Your task to perform on an android device: toggle notifications settings in the gmail app Image 0: 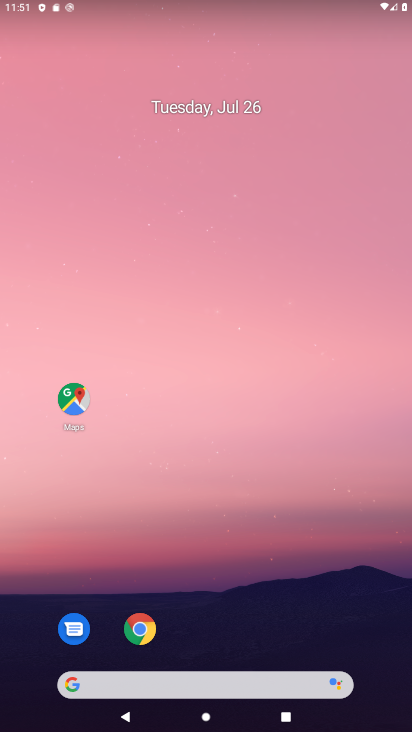
Step 0: click (181, 193)
Your task to perform on an android device: toggle notifications settings in the gmail app Image 1: 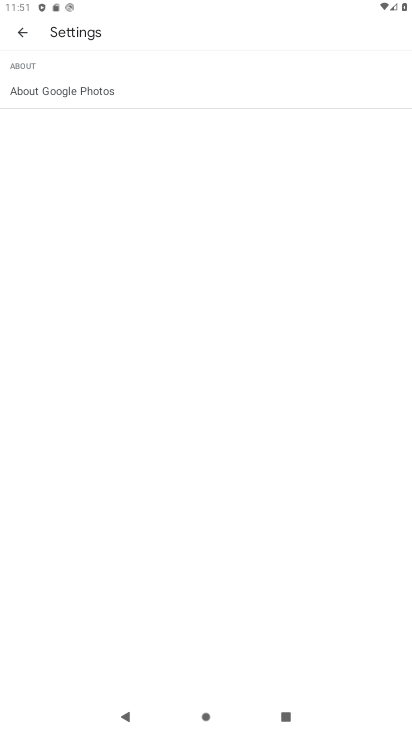
Step 1: press home button
Your task to perform on an android device: toggle notifications settings in the gmail app Image 2: 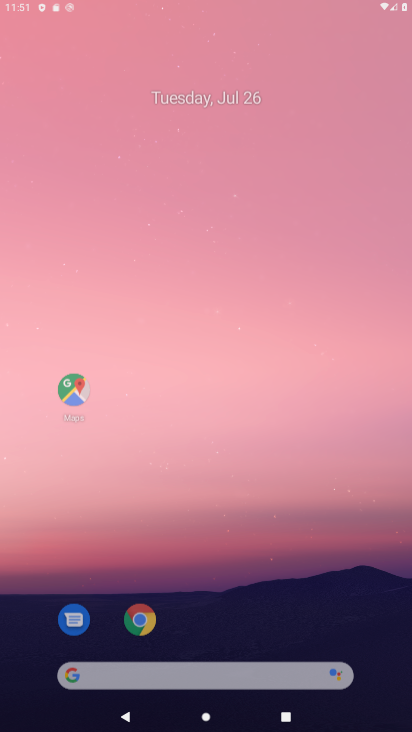
Step 2: drag from (249, 608) to (266, 160)
Your task to perform on an android device: toggle notifications settings in the gmail app Image 3: 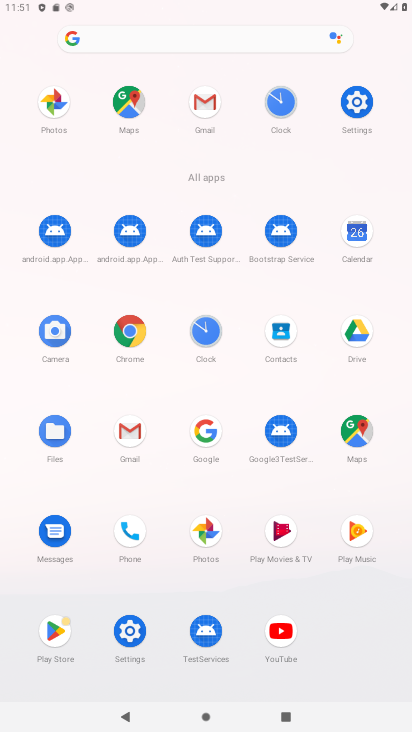
Step 3: click (130, 444)
Your task to perform on an android device: toggle notifications settings in the gmail app Image 4: 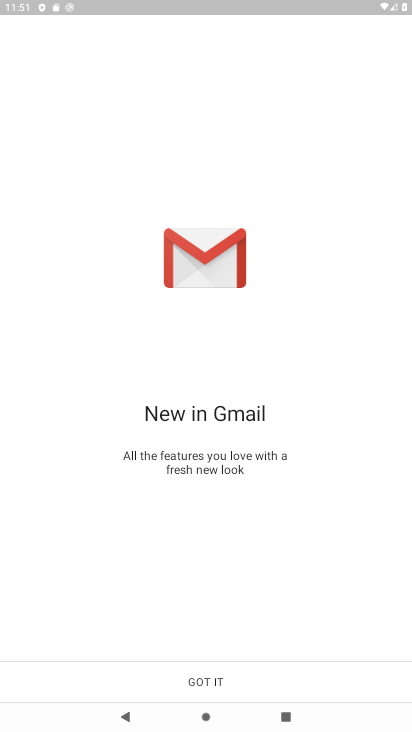
Step 4: drag from (234, 631) to (227, 244)
Your task to perform on an android device: toggle notifications settings in the gmail app Image 5: 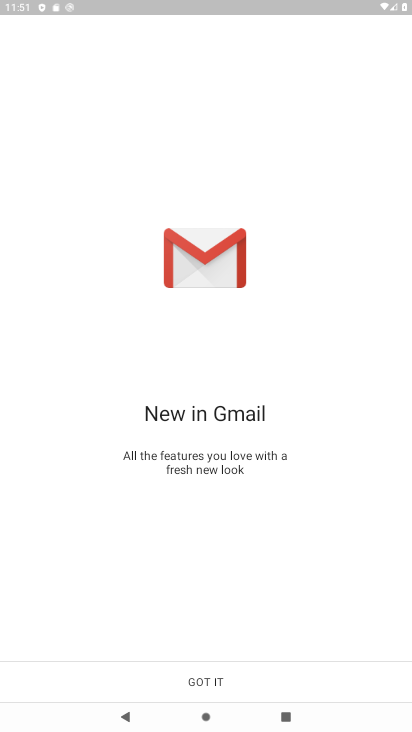
Step 5: click (195, 672)
Your task to perform on an android device: toggle notifications settings in the gmail app Image 6: 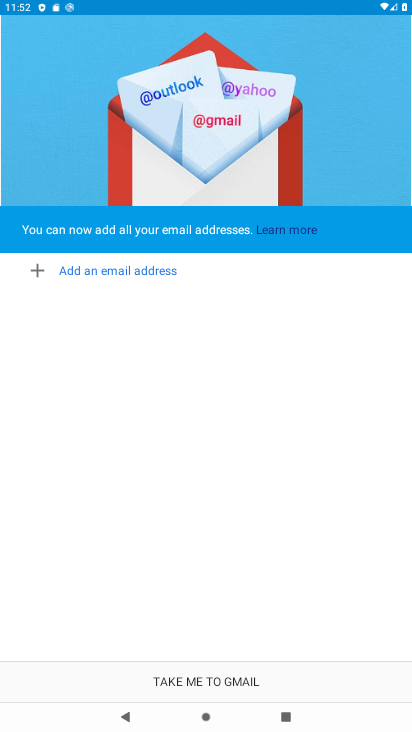
Step 6: click (186, 677)
Your task to perform on an android device: toggle notifications settings in the gmail app Image 7: 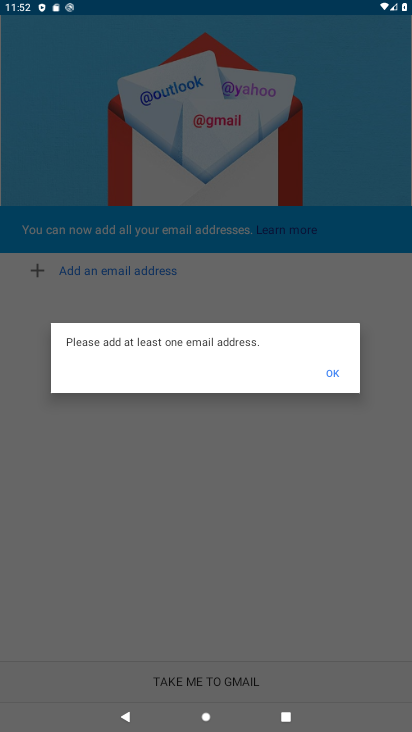
Step 7: click (332, 366)
Your task to perform on an android device: toggle notifications settings in the gmail app Image 8: 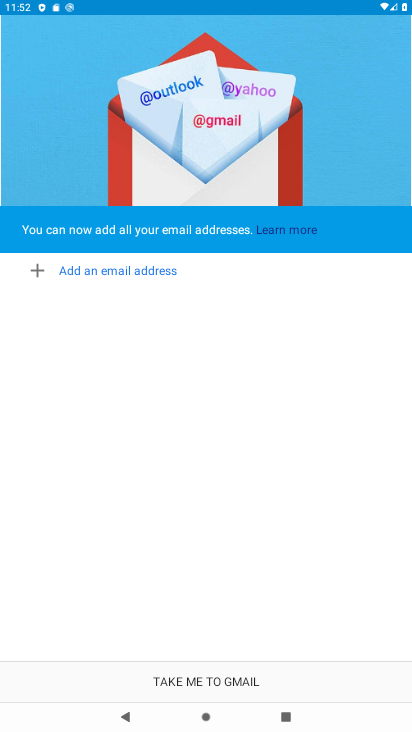
Step 8: task complete